Your task to perform on an android device: turn off data saver in the chrome app Image 0: 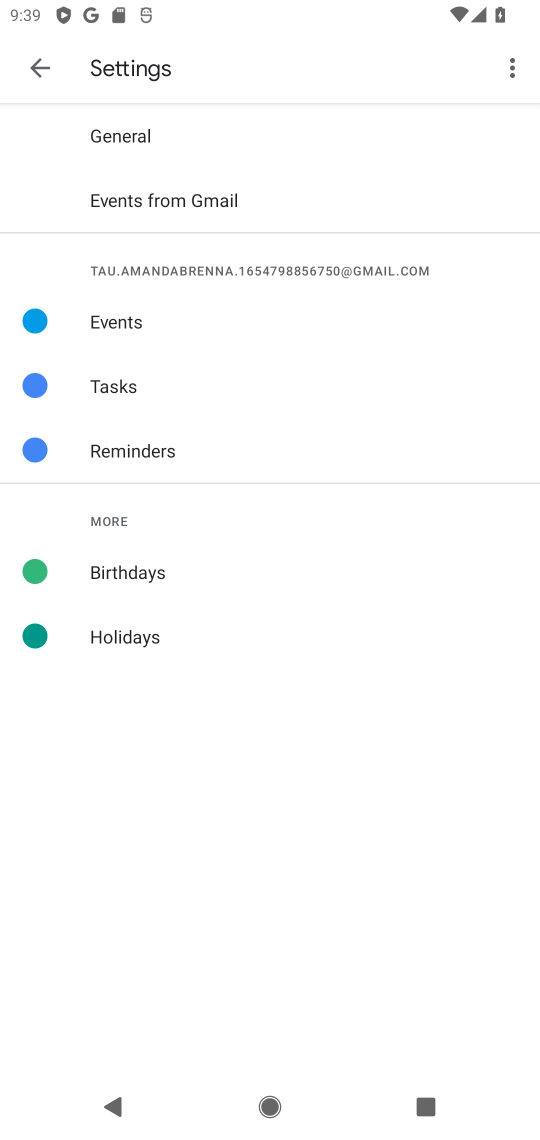
Step 0: press home button
Your task to perform on an android device: turn off data saver in the chrome app Image 1: 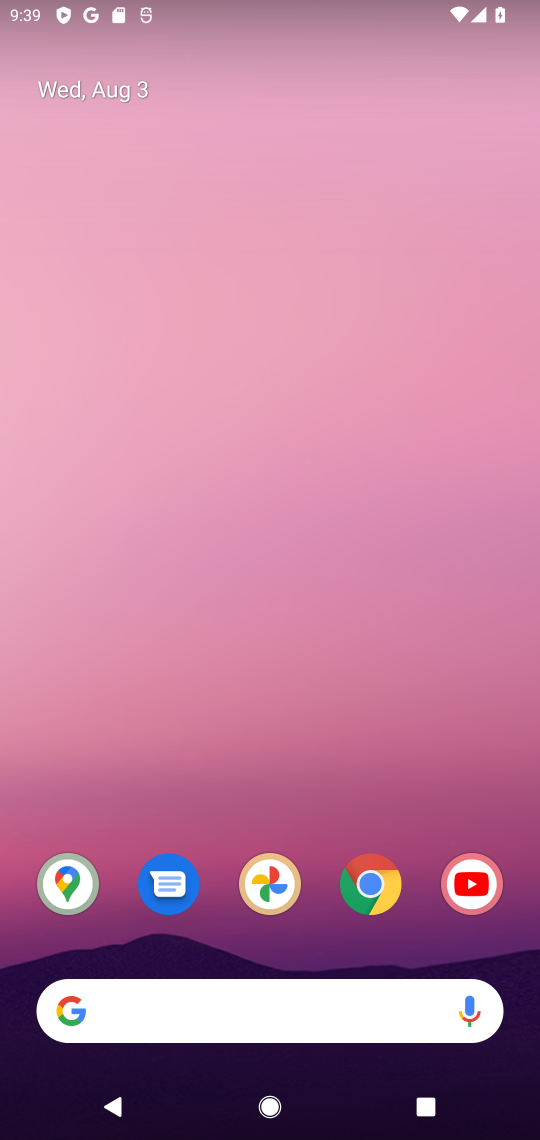
Step 1: click (365, 896)
Your task to perform on an android device: turn off data saver in the chrome app Image 2: 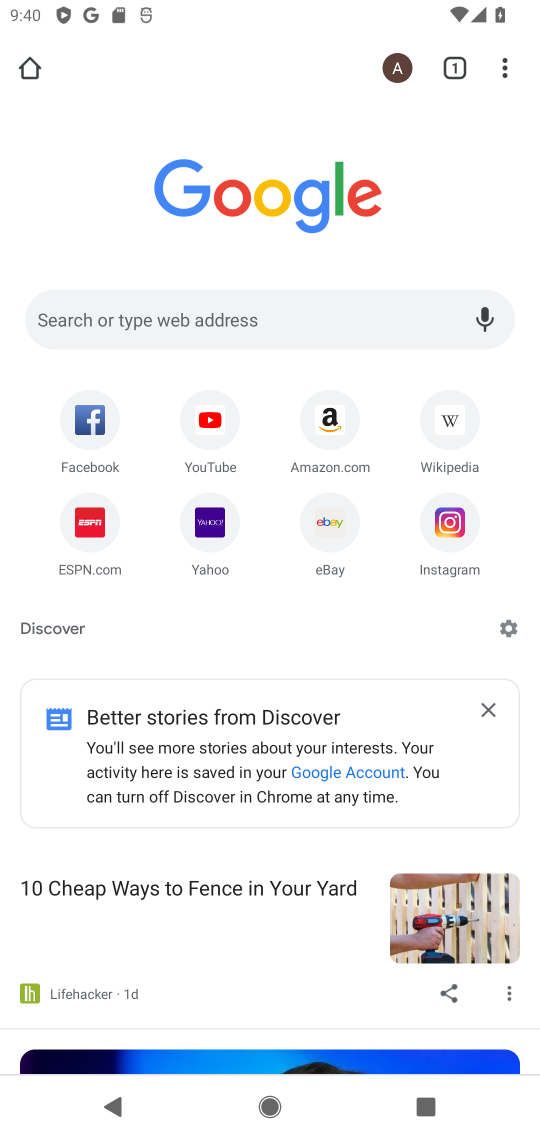
Step 2: click (503, 67)
Your task to perform on an android device: turn off data saver in the chrome app Image 3: 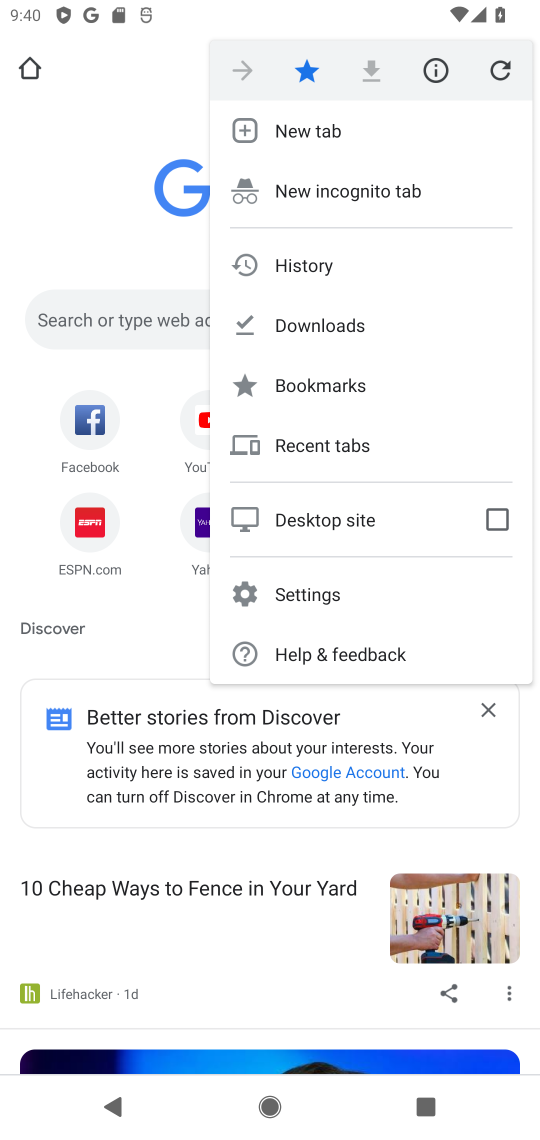
Step 3: click (313, 591)
Your task to perform on an android device: turn off data saver in the chrome app Image 4: 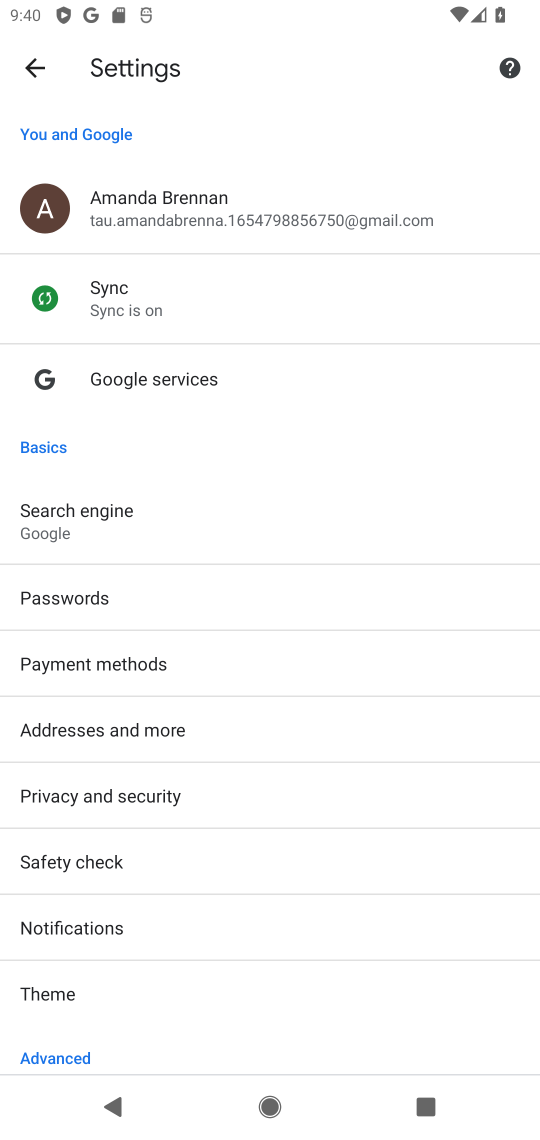
Step 4: drag from (329, 1003) to (331, 202)
Your task to perform on an android device: turn off data saver in the chrome app Image 5: 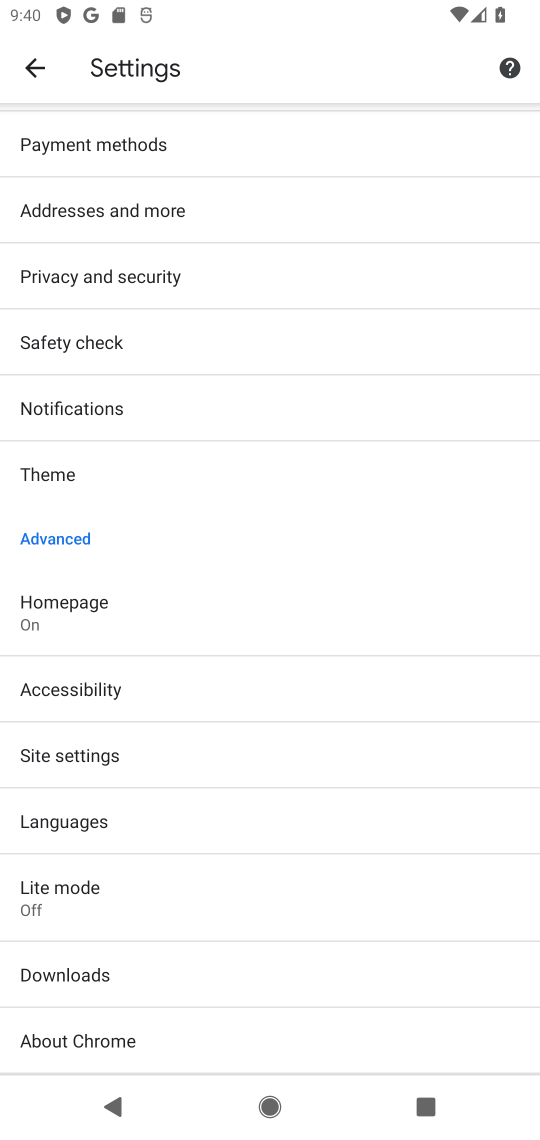
Step 5: click (70, 895)
Your task to perform on an android device: turn off data saver in the chrome app Image 6: 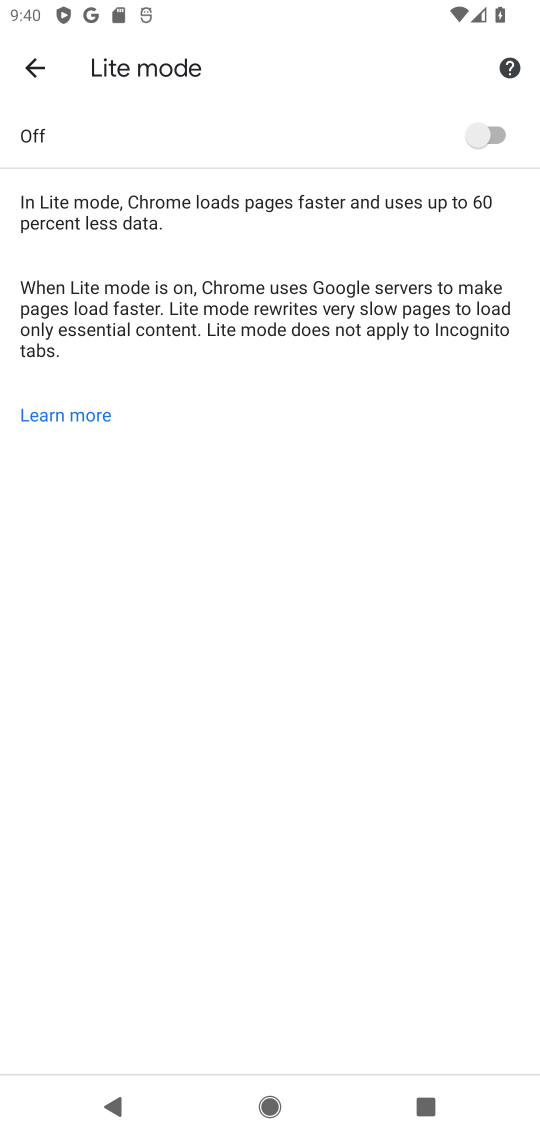
Step 6: task complete